Your task to perform on an android device: What's on the menu at Red Lobster? Image 0: 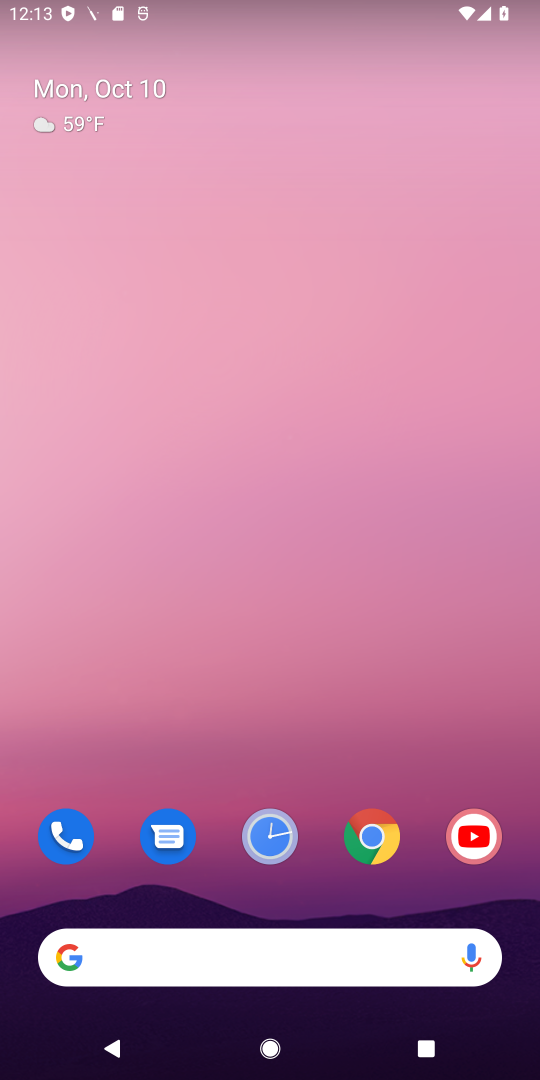
Step 0: click (387, 833)
Your task to perform on an android device: What's on the menu at Red Lobster? Image 1: 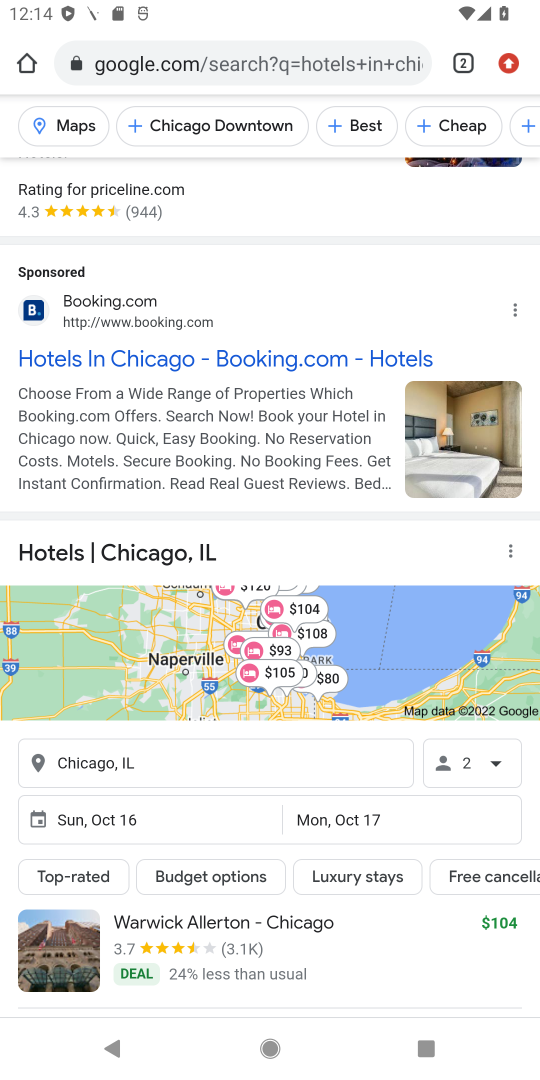
Step 1: click (269, 59)
Your task to perform on an android device: What's on the menu at Red Lobster? Image 2: 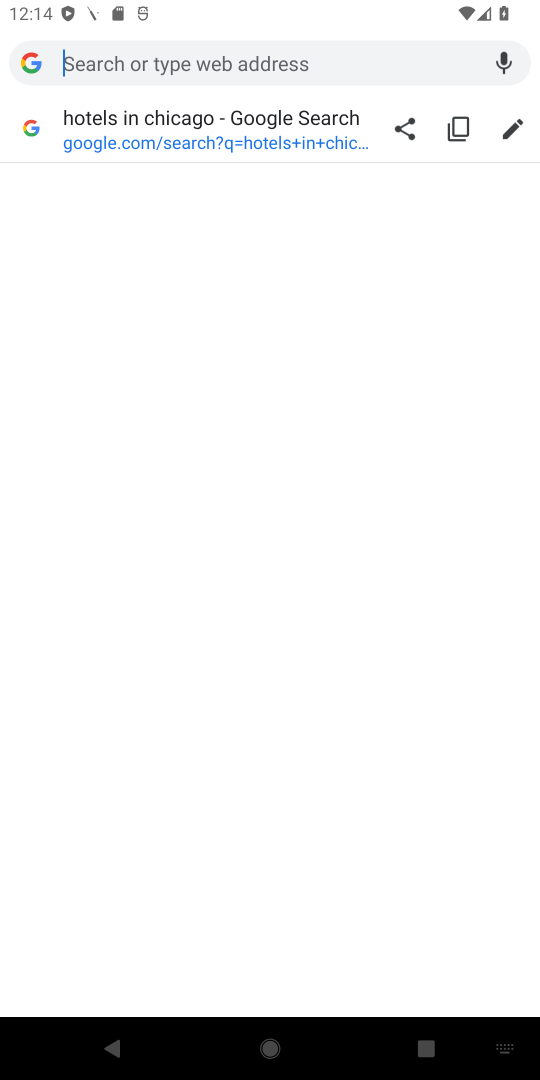
Step 2: type "red lobster menu"
Your task to perform on an android device: What's on the menu at Red Lobster? Image 3: 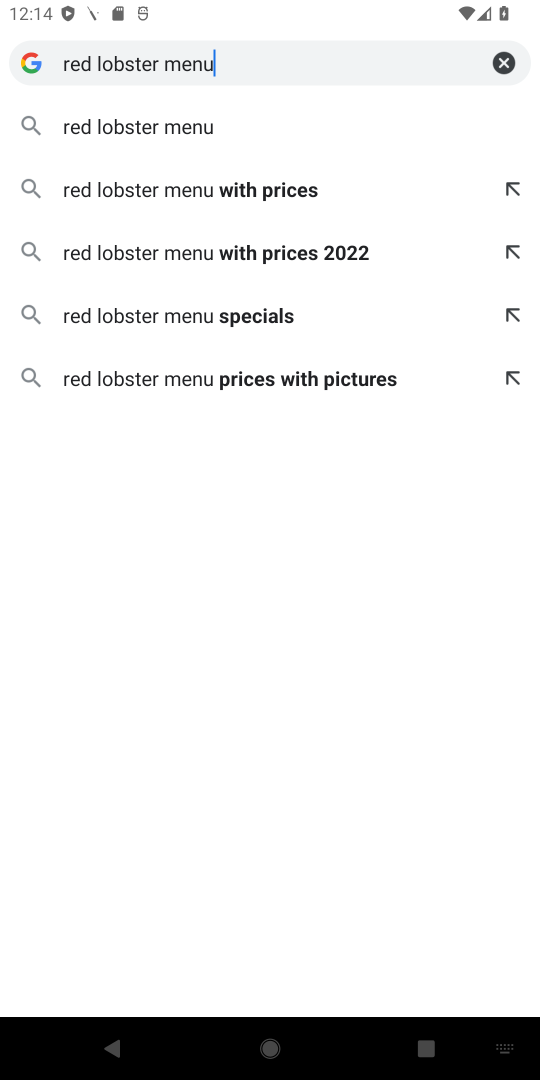
Step 3: click (215, 128)
Your task to perform on an android device: What's on the menu at Red Lobster? Image 4: 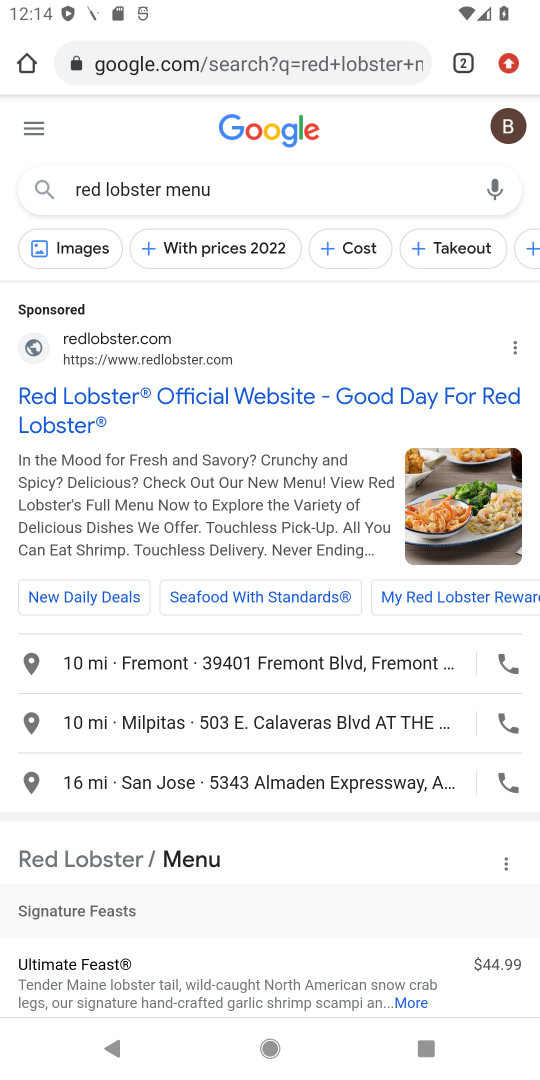
Step 4: drag from (247, 922) to (344, 219)
Your task to perform on an android device: What's on the menu at Red Lobster? Image 5: 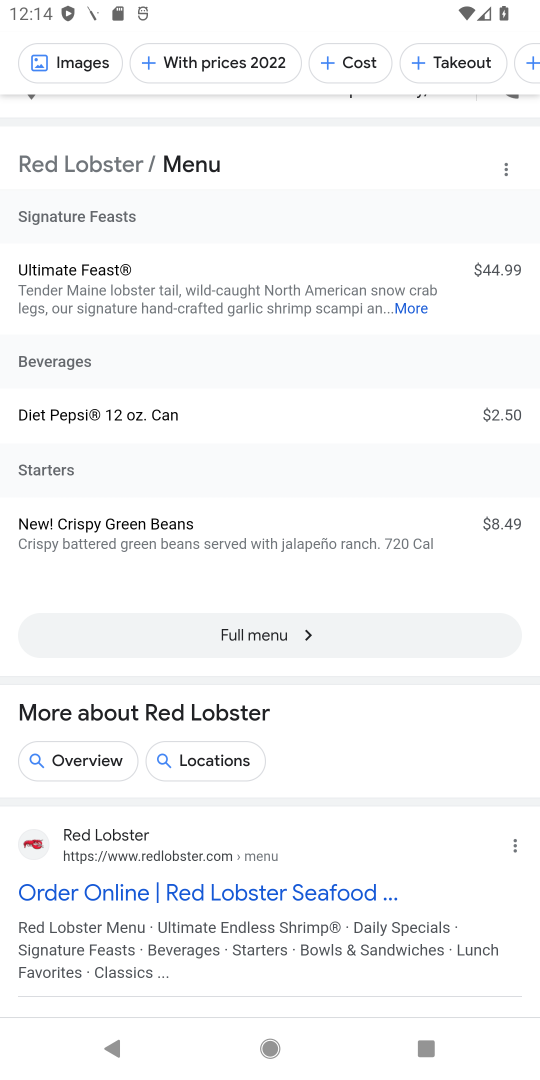
Step 5: click (283, 628)
Your task to perform on an android device: What's on the menu at Red Lobster? Image 6: 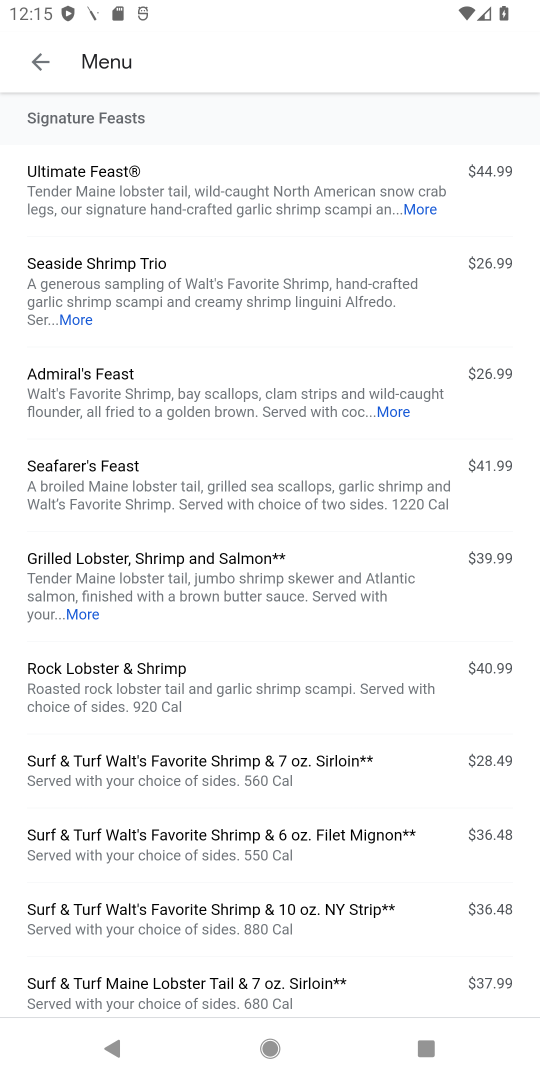
Step 6: task complete